Your task to perform on an android device: manage bookmarks in the chrome app Image 0: 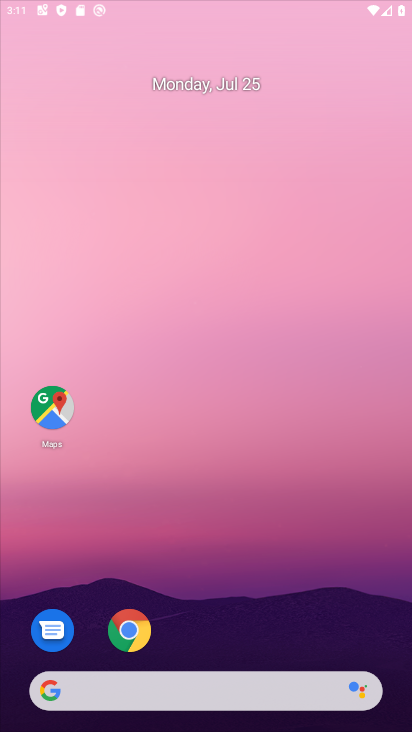
Step 0: press home button
Your task to perform on an android device: manage bookmarks in the chrome app Image 1: 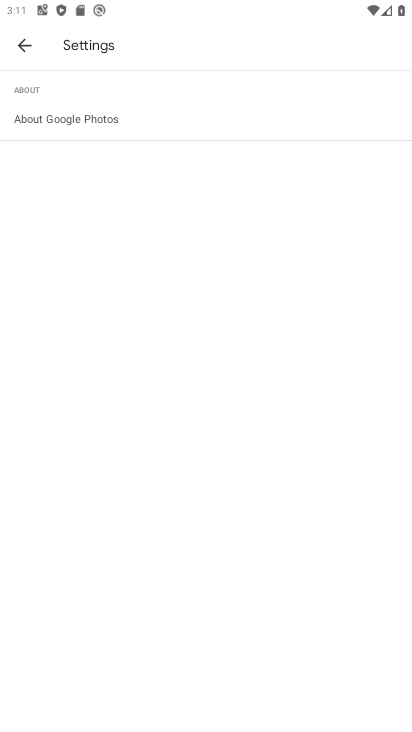
Step 1: click (134, 87)
Your task to perform on an android device: manage bookmarks in the chrome app Image 2: 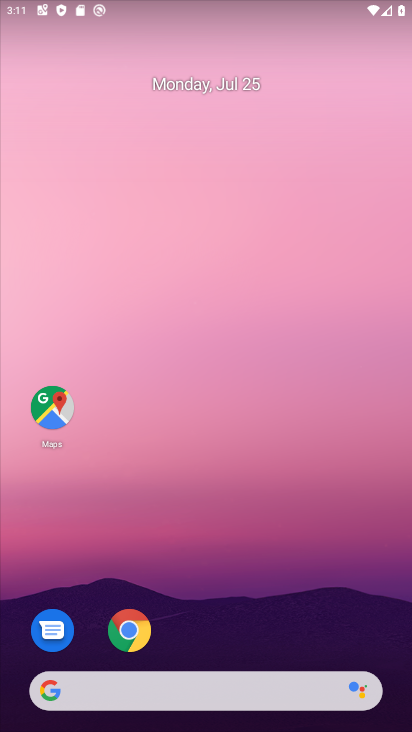
Step 2: click (142, 615)
Your task to perform on an android device: manage bookmarks in the chrome app Image 3: 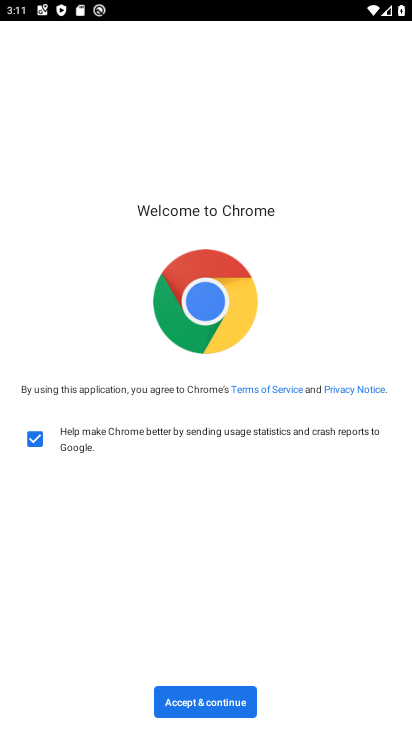
Step 3: click (233, 692)
Your task to perform on an android device: manage bookmarks in the chrome app Image 4: 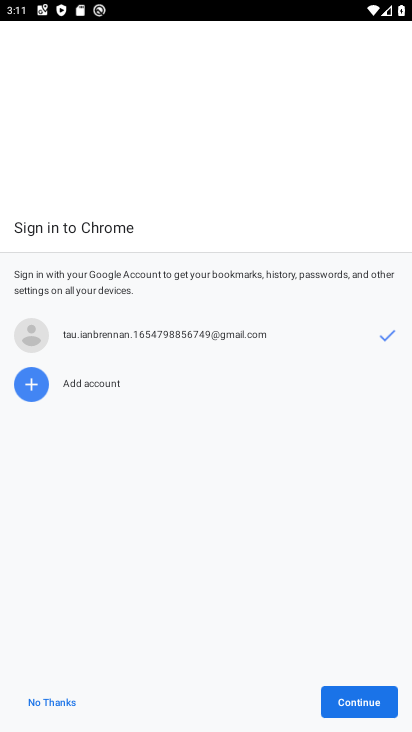
Step 4: click (334, 684)
Your task to perform on an android device: manage bookmarks in the chrome app Image 5: 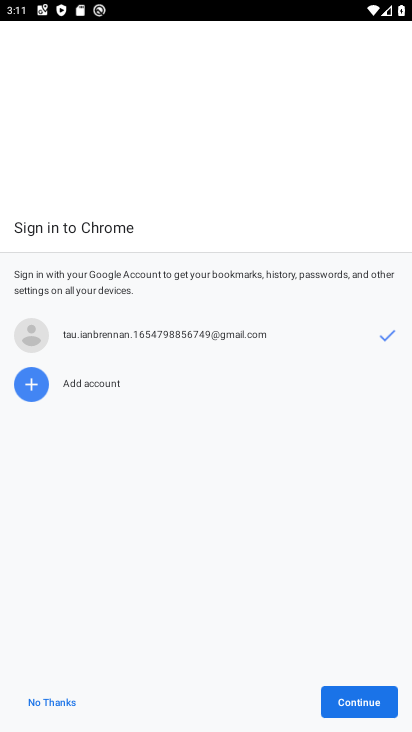
Step 5: click (344, 701)
Your task to perform on an android device: manage bookmarks in the chrome app Image 6: 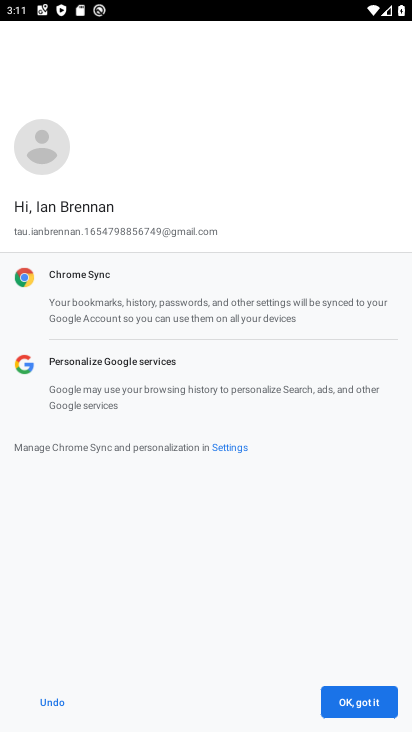
Step 6: click (340, 700)
Your task to perform on an android device: manage bookmarks in the chrome app Image 7: 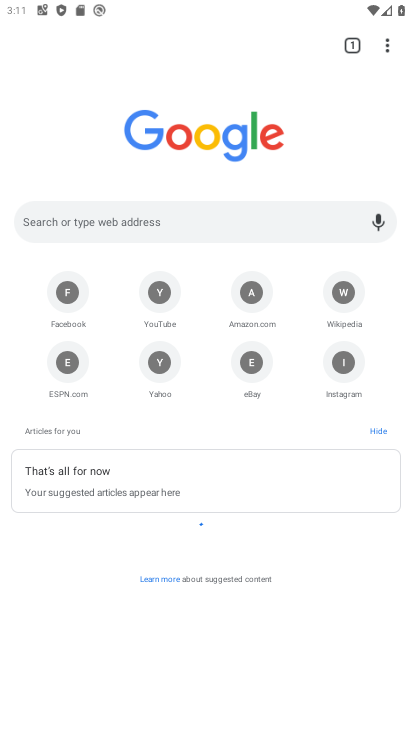
Step 7: drag from (390, 49) to (276, 165)
Your task to perform on an android device: manage bookmarks in the chrome app Image 8: 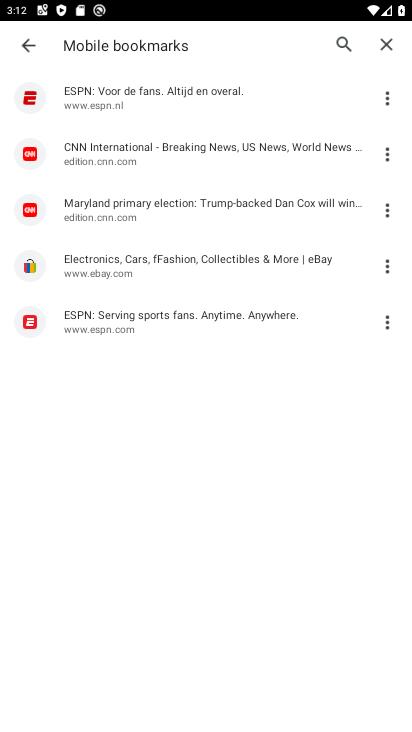
Step 8: click (386, 151)
Your task to perform on an android device: manage bookmarks in the chrome app Image 9: 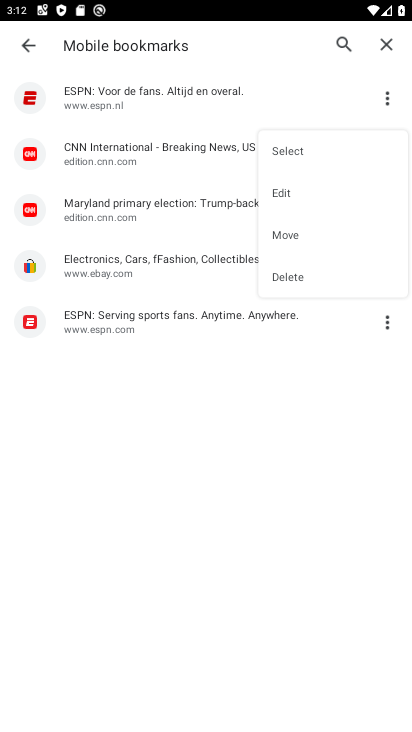
Step 9: click (304, 279)
Your task to perform on an android device: manage bookmarks in the chrome app Image 10: 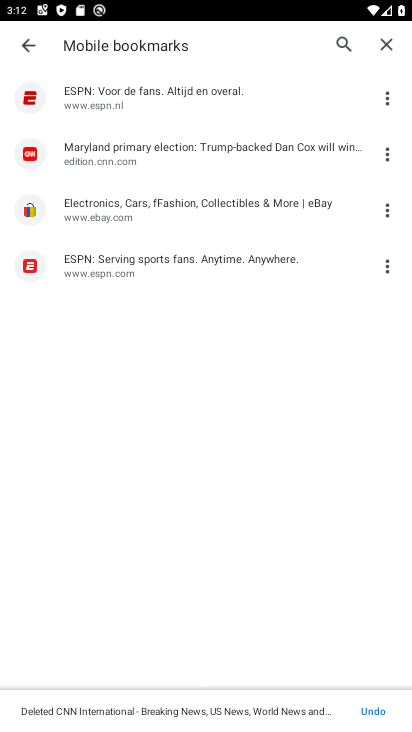
Step 10: task complete